Your task to perform on an android device: turn off location history Image 0: 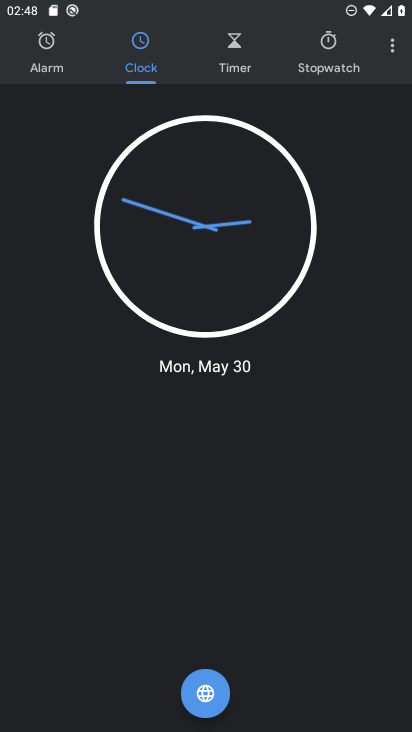
Step 0: press home button
Your task to perform on an android device: turn off location history Image 1: 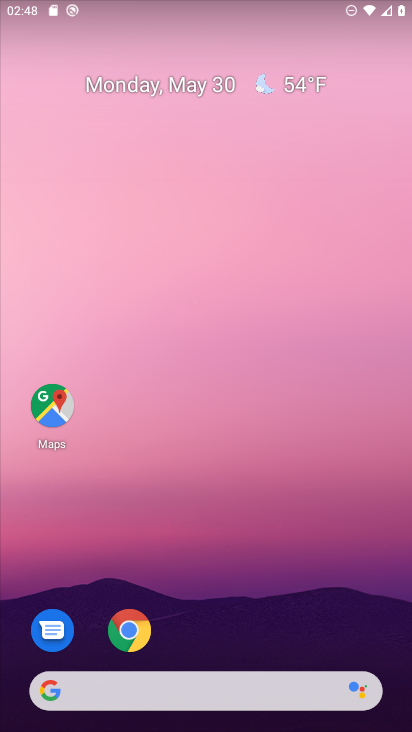
Step 1: click (51, 409)
Your task to perform on an android device: turn off location history Image 2: 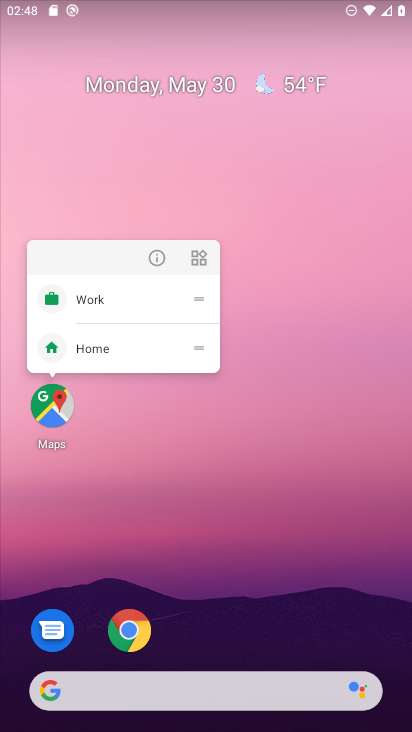
Step 2: click (51, 409)
Your task to perform on an android device: turn off location history Image 3: 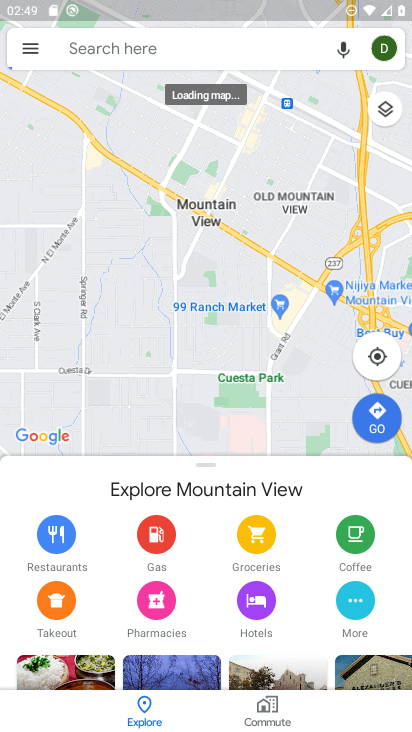
Step 3: click (33, 49)
Your task to perform on an android device: turn off location history Image 4: 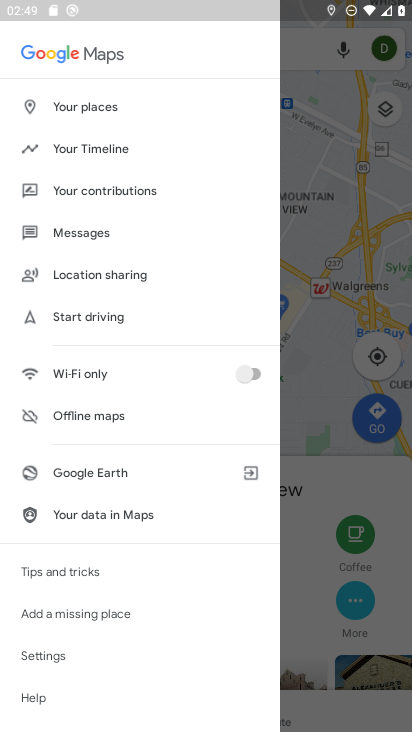
Step 4: click (87, 147)
Your task to perform on an android device: turn off location history Image 5: 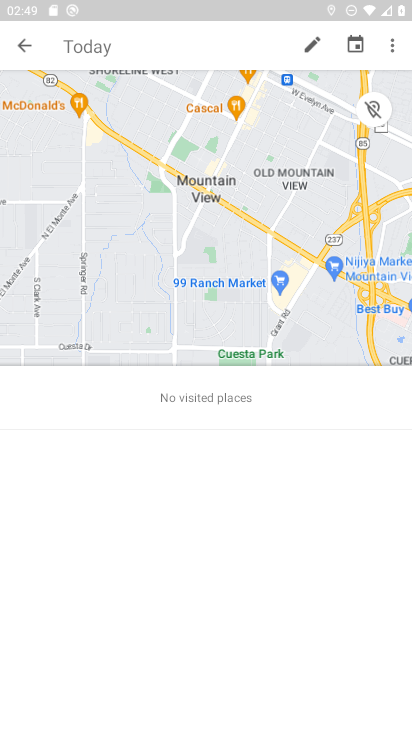
Step 5: click (392, 44)
Your task to perform on an android device: turn off location history Image 6: 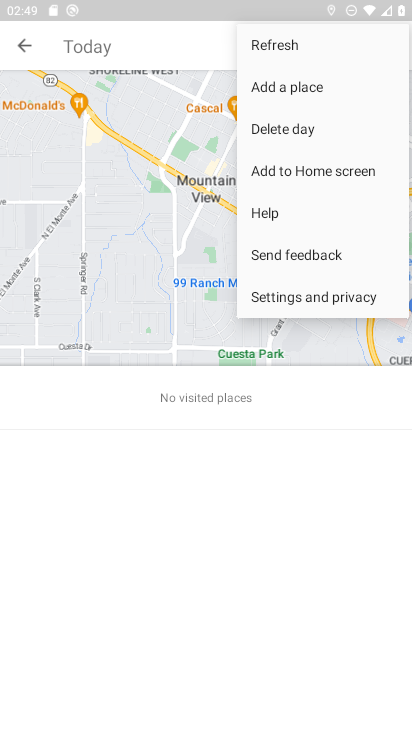
Step 6: click (319, 294)
Your task to perform on an android device: turn off location history Image 7: 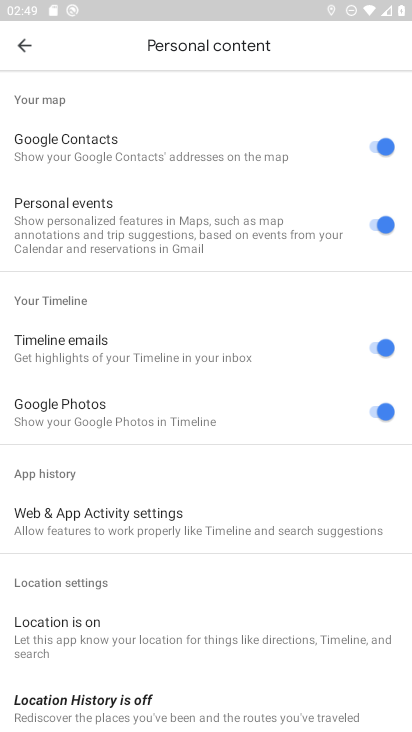
Step 7: drag from (193, 581) to (336, 157)
Your task to perform on an android device: turn off location history Image 8: 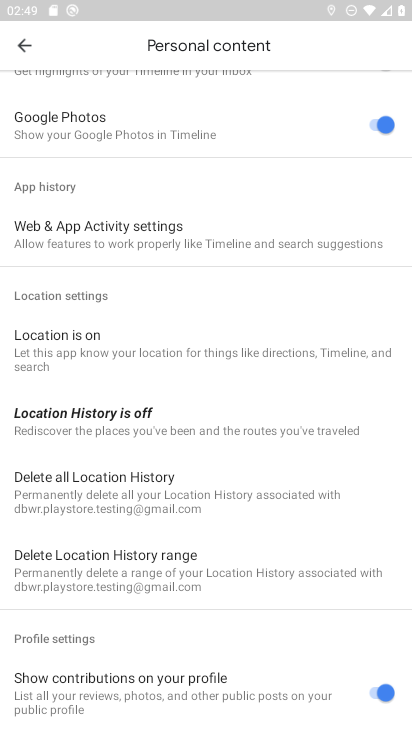
Step 8: click (165, 425)
Your task to perform on an android device: turn off location history Image 9: 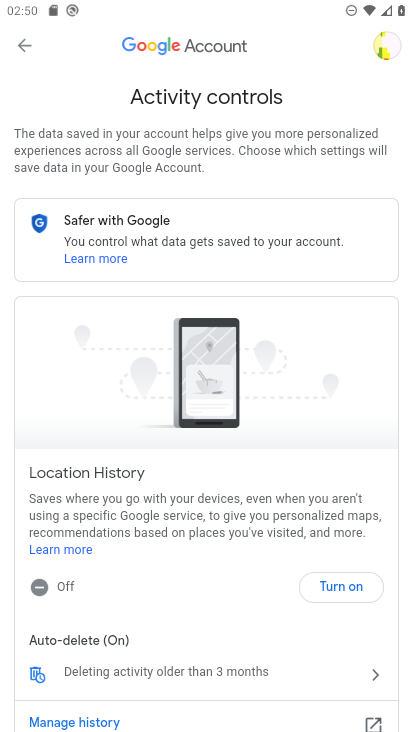
Step 9: task complete